Your task to perform on an android device: turn off priority inbox in the gmail app Image 0: 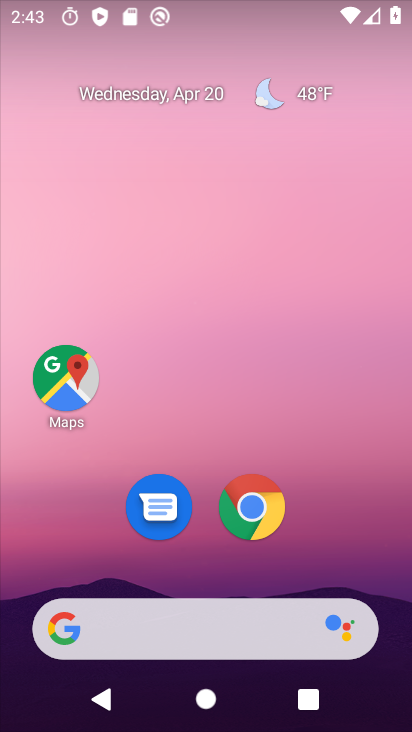
Step 0: drag from (204, 608) to (182, 159)
Your task to perform on an android device: turn off priority inbox in the gmail app Image 1: 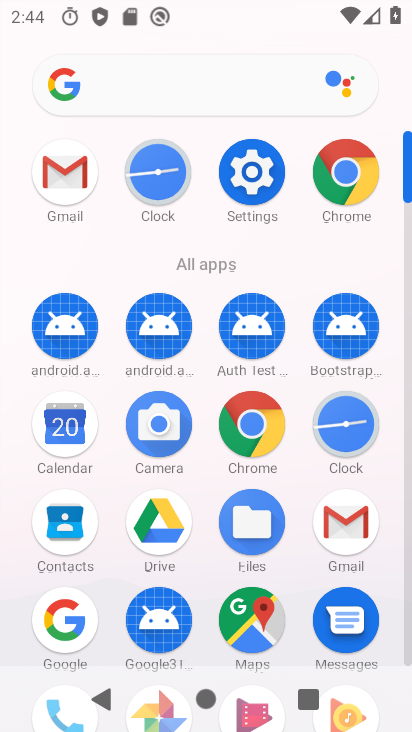
Step 1: click (330, 520)
Your task to perform on an android device: turn off priority inbox in the gmail app Image 2: 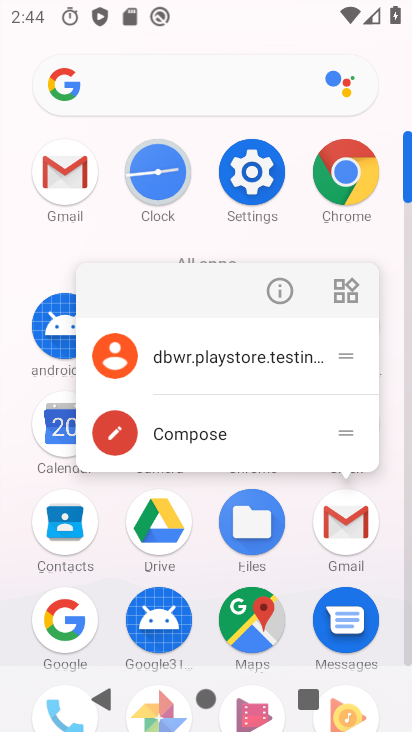
Step 2: click (339, 523)
Your task to perform on an android device: turn off priority inbox in the gmail app Image 3: 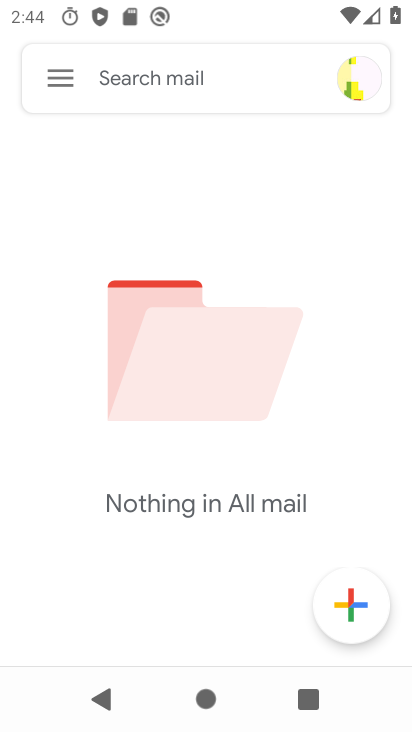
Step 3: click (69, 90)
Your task to perform on an android device: turn off priority inbox in the gmail app Image 4: 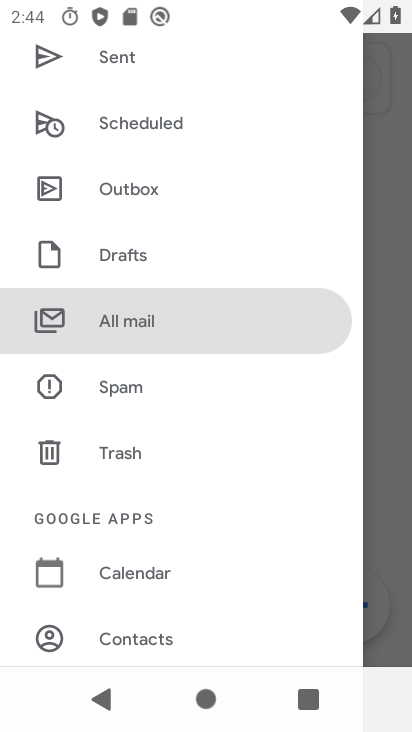
Step 4: drag from (155, 549) to (164, 140)
Your task to perform on an android device: turn off priority inbox in the gmail app Image 5: 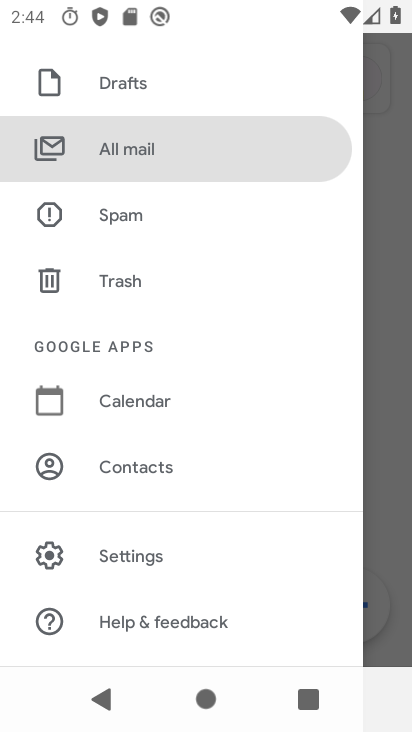
Step 5: click (144, 553)
Your task to perform on an android device: turn off priority inbox in the gmail app Image 6: 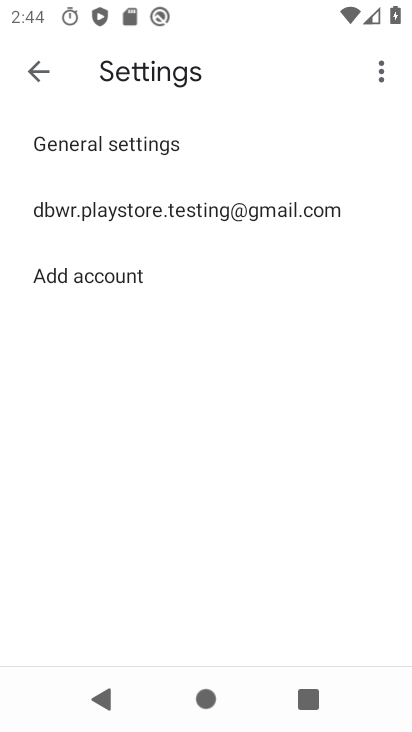
Step 6: click (194, 209)
Your task to perform on an android device: turn off priority inbox in the gmail app Image 7: 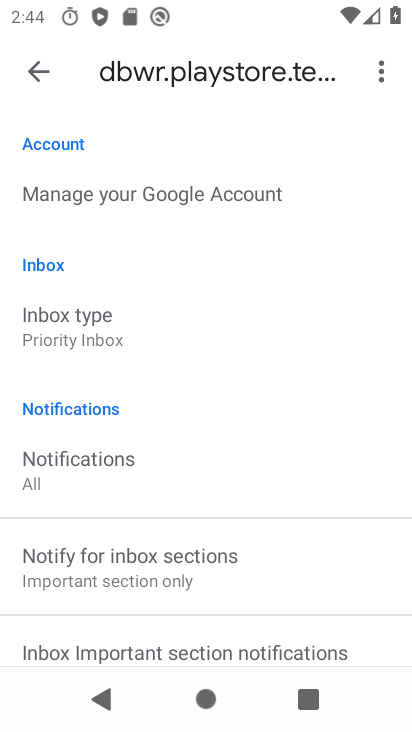
Step 7: click (73, 332)
Your task to perform on an android device: turn off priority inbox in the gmail app Image 8: 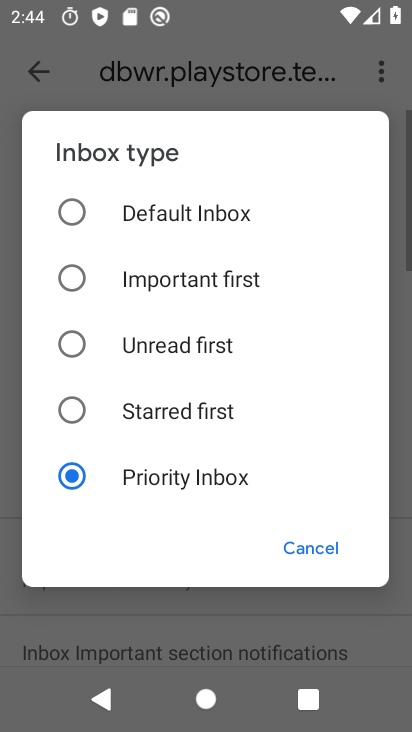
Step 8: click (148, 222)
Your task to perform on an android device: turn off priority inbox in the gmail app Image 9: 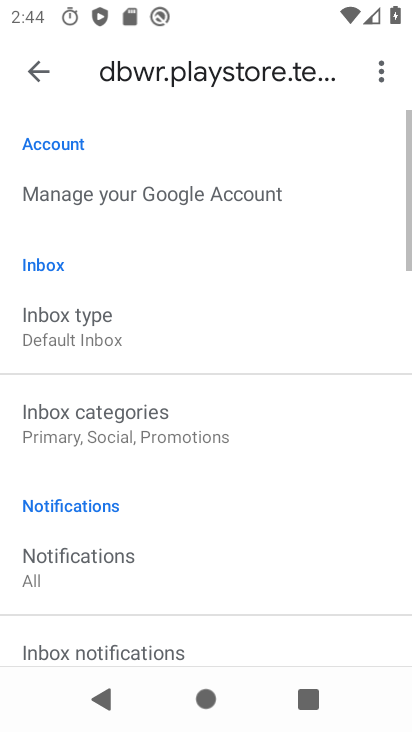
Step 9: task complete